Your task to perform on an android device: Open maps Image 0: 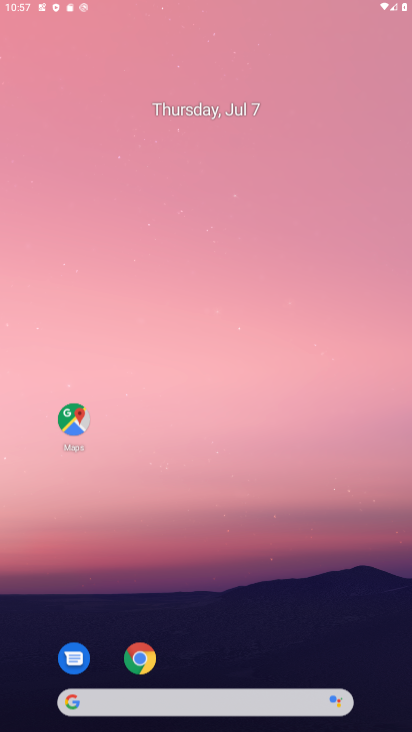
Step 0: press home button
Your task to perform on an android device: Open maps Image 1: 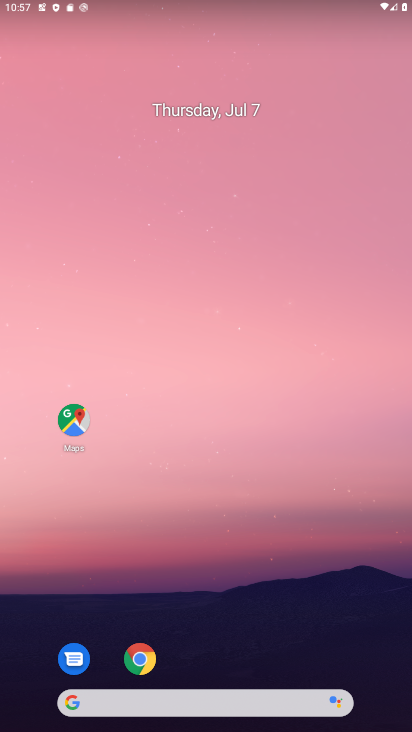
Step 1: click (74, 417)
Your task to perform on an android device: Open maps Image 2: 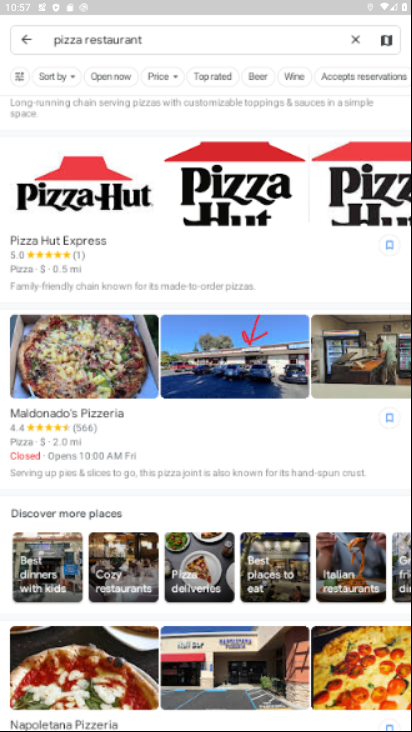
Step 2: click (359, 42)
Your task to perform on an android device: Open maps Image 3: 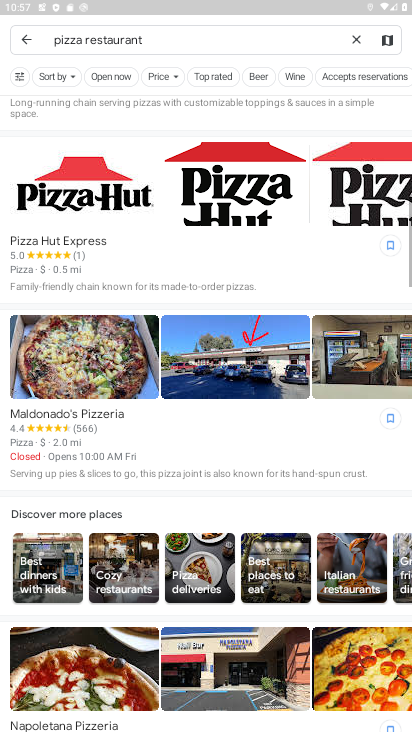
Step 3: click (22, 39)
Your task to perform on an android device: Open maps Image 4: 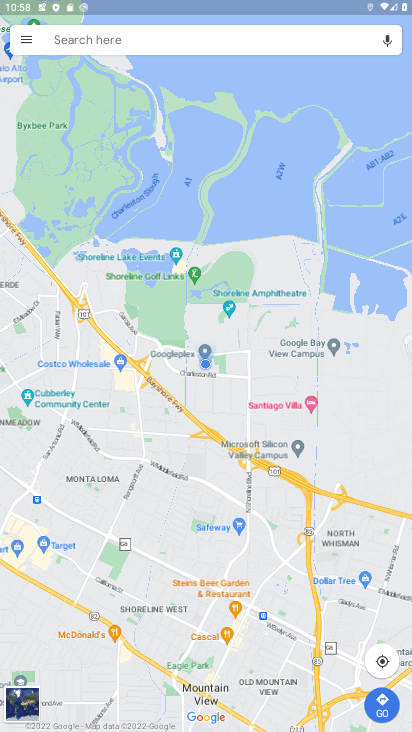
Step 4: drag from (231, 657) to (240, 192)
Your task to perform on an android device: Open maps Image 5: 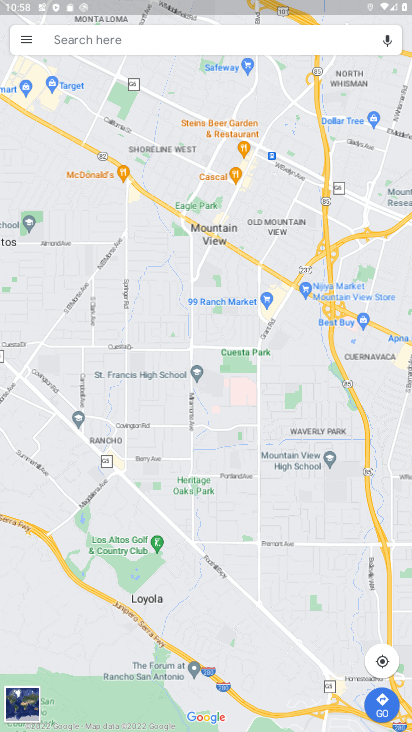
Step 5: click (381, 707)
Your task to perform on an android device: Open maps Image 6: 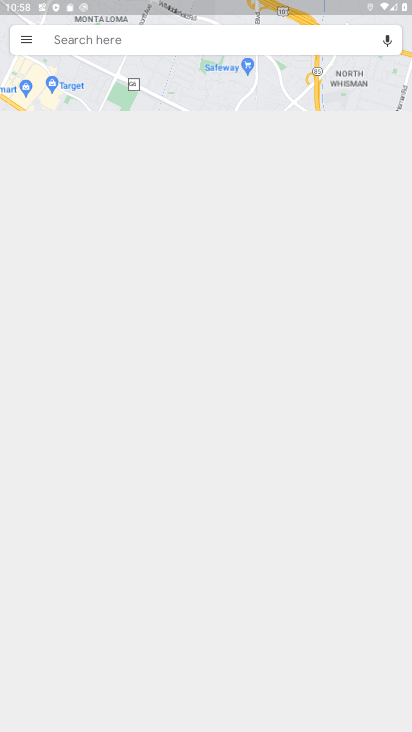
Step 6: task complete